Your task to perform on an android device: Open wifi settings Image 0: 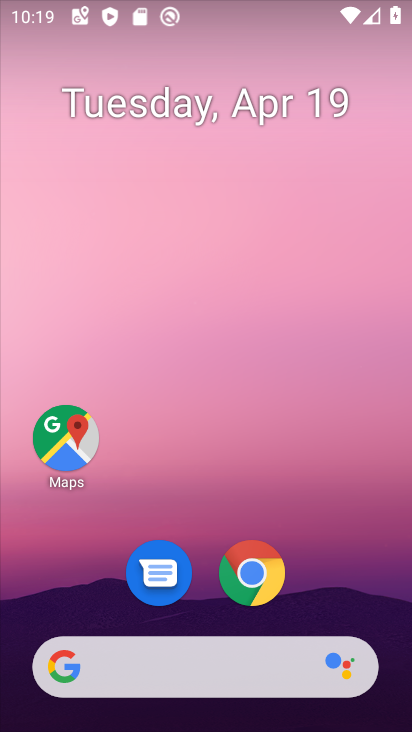
Step 0: drag from (323, 567) to (257, 73)
Your task to perform on an android device: Open wifi settings Image 1: 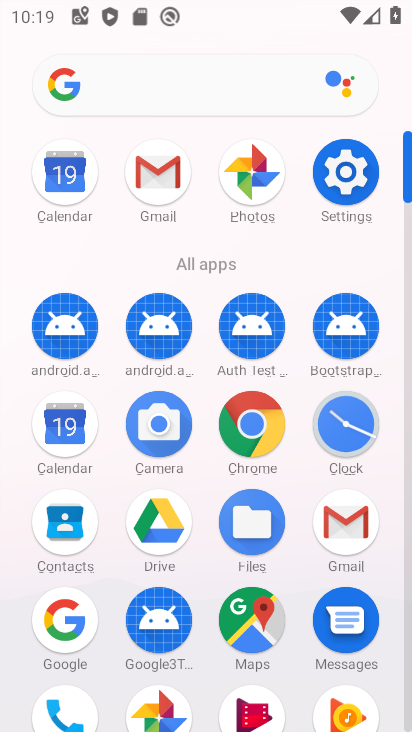
Step 1: click (352, 170)
Your task to perform on an android device: Open wifi settings Image 2: 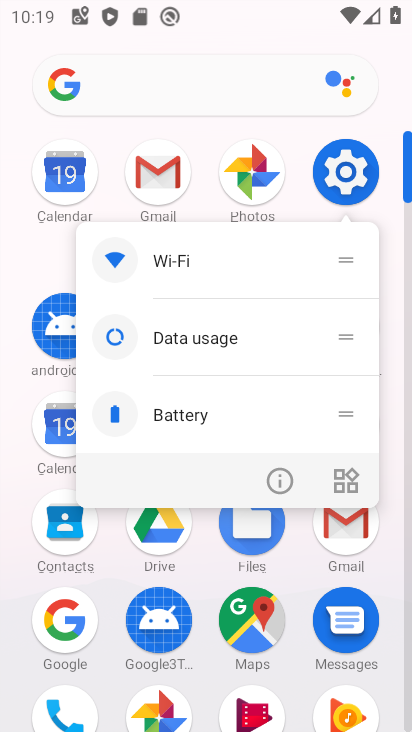
Step 2: click (169, 254)
Your task to perform on an android device: Open wifi settings Image 3: 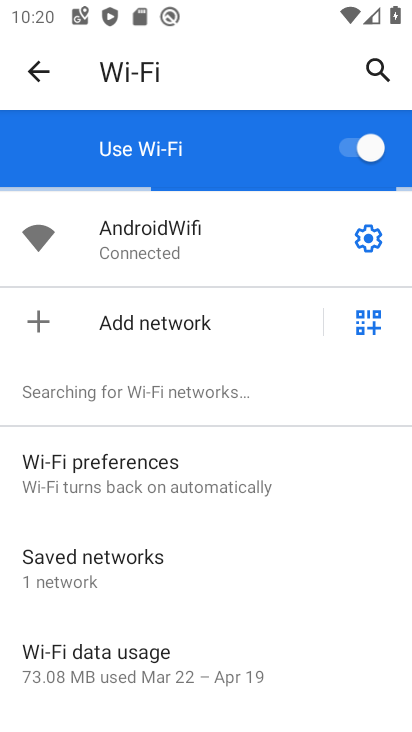
Step 3: task complete